Your task to perform on an android device: turn off smart reply in the gmail app Image 0: 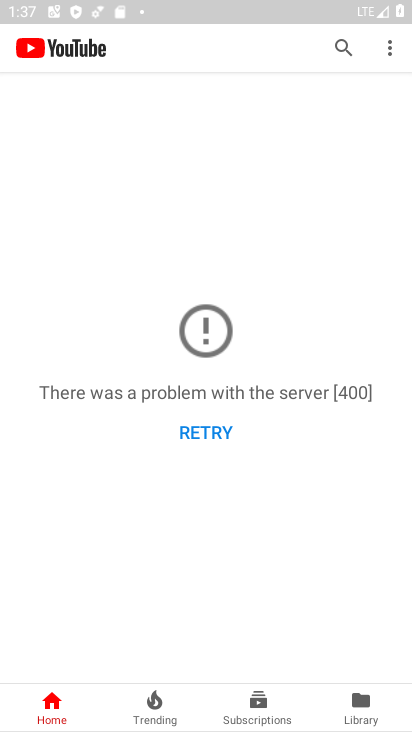
Step 0: press home button
Your task to perform on an android device: turn off smart reply in the gmail app Image 1: 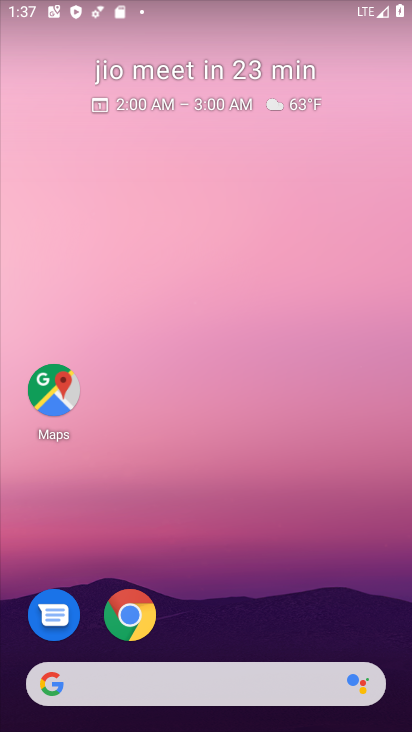
Step 1: drag from (204, 680) to (293, 70)
Your task to perform on an android device: turn off smart reply in the gmail app Image 2: 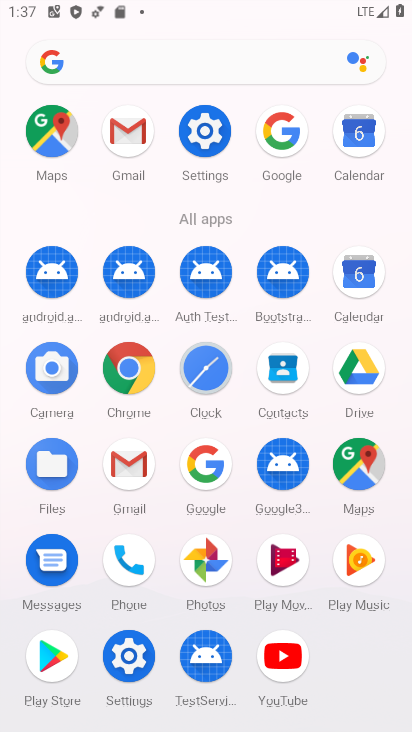
Step 2: click (135, 478)
Your task to perform on an android device: turn off smart reply in the gmail app Image 3: 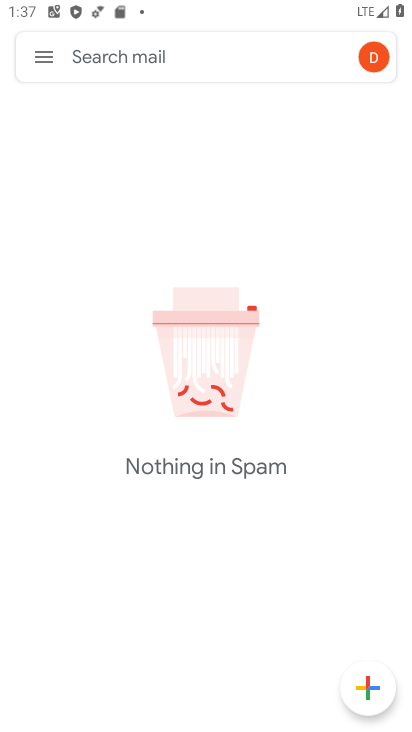
Step 3: click (40, 50)
Your task to perform on an android device: turn off smart reply in the gmail app Image 4: 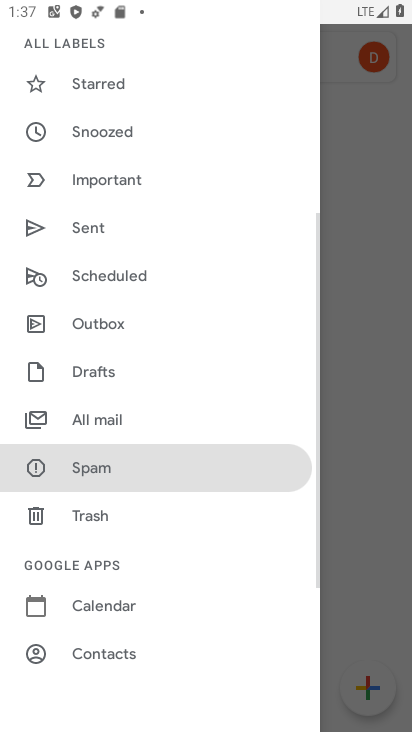
Step 4: drag from (74, 699) to (211, 300)
Your task to perform on an android device: turn off smart reply in the gmail app Image 5: 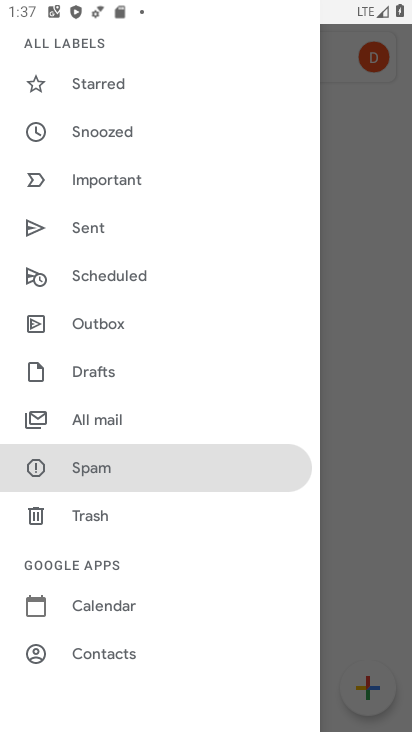
Step 5: drag from (156, 648) to (229, 352)
Your task to perform on an android device: turn off smart reply in the gmail app Image 6: 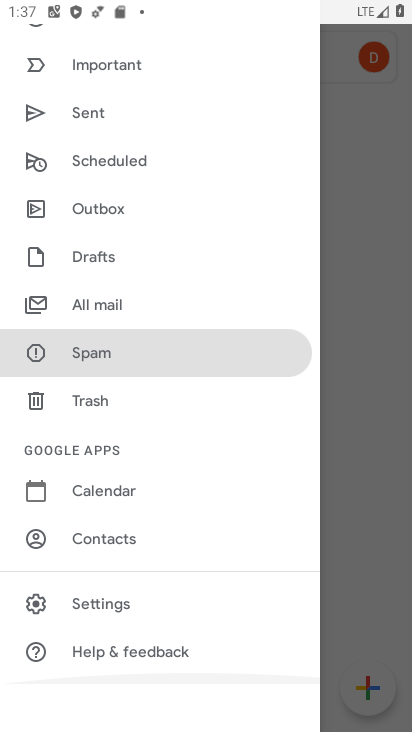
Step 6: click (107, 609)
Your task to perform on an android device: turn off smart reply in the gmail app Image 7: 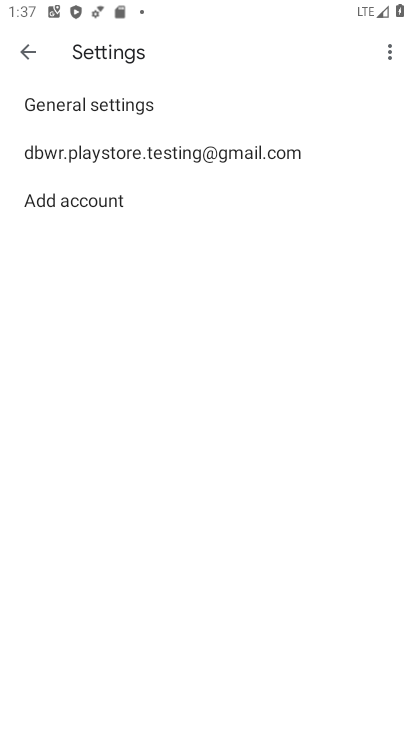
Step 7: click (302, 157)
Your task to perform on an android device: turn off smart reply in the gmail app Image 8: 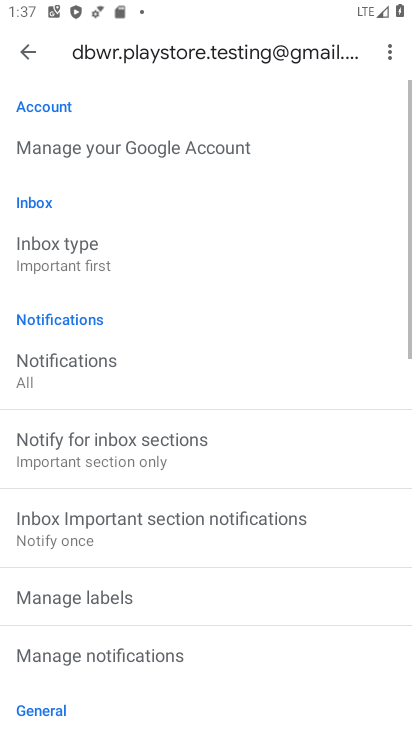
Step 8: drag from (267, 528) to (348, 207)
Your task to perform on an android device: turn off smart reply in the gmail app Image 9: 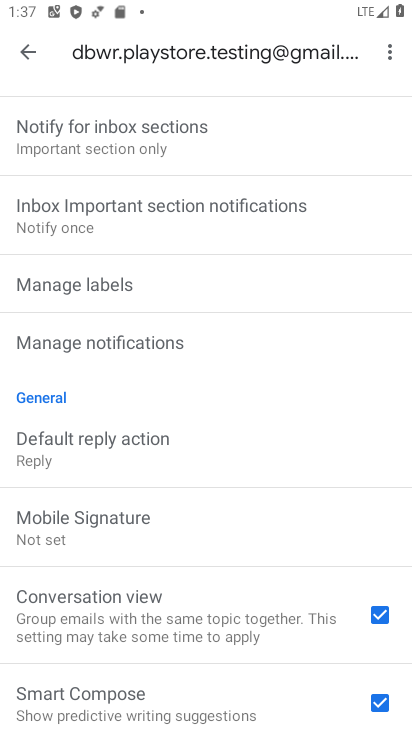
Step 9: drag from (214, 603) to (270, 300)
Your task to perform on an android device: turn off smart reply in the gmail app Image 10: 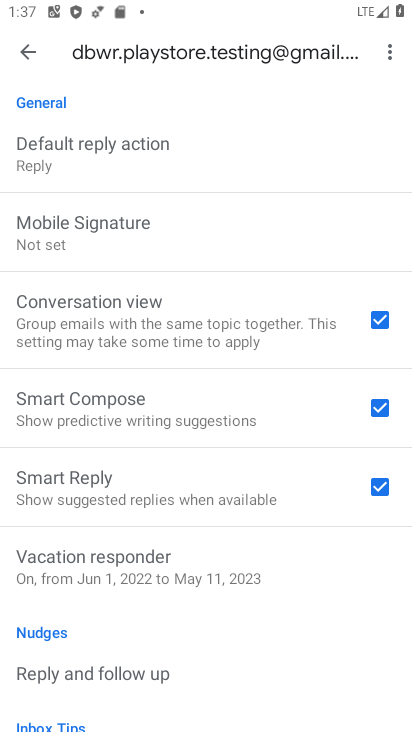
Step 10: click (350, 469)
Your task to perform on an android device: turn off smart reply in the gmail app Image 11: 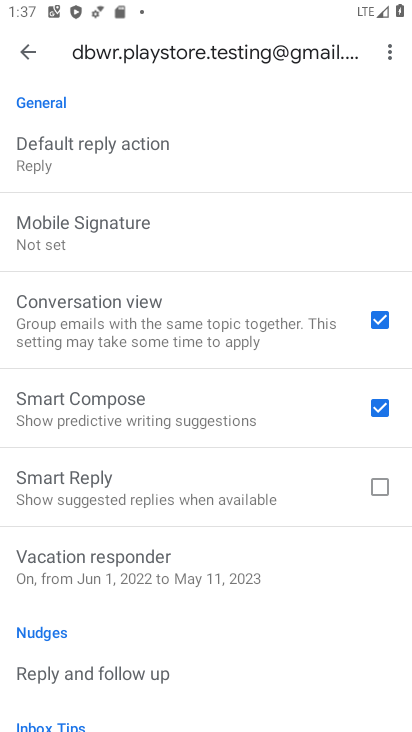
Step 11: task complete